Your task to perform on an android device: Open Google Chrome and open the bookmarks view Image 0: 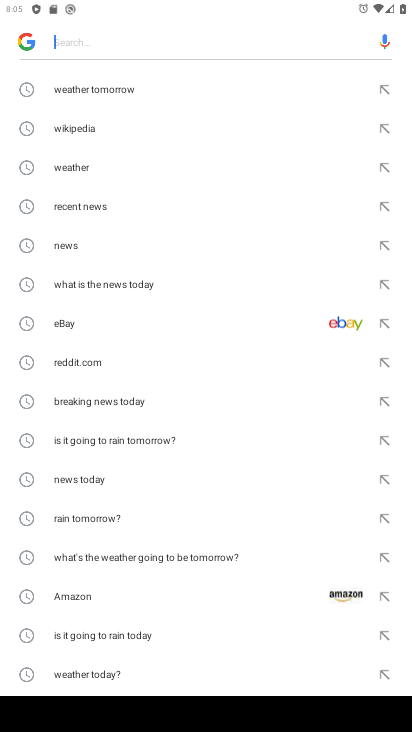
Step 0: press home button
Your task to perform on an android device: Open Google Chrome and open the bookmarks view Image 1: 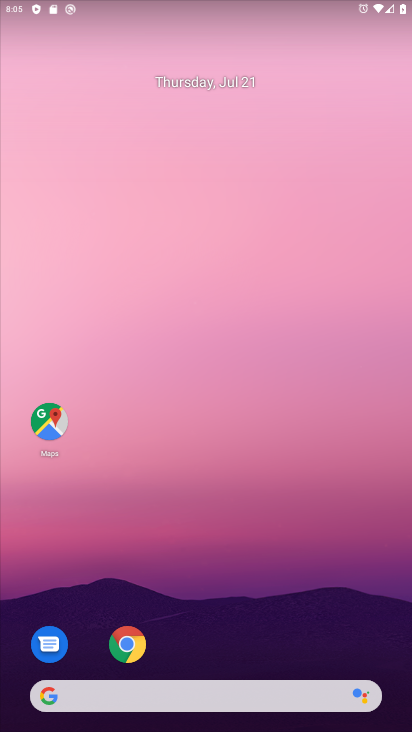
Step 1: drag from (364, 561) to (389, 160)
Your task to perform on an android device: Open Google Chrome and open the bookmarks view Image 2: 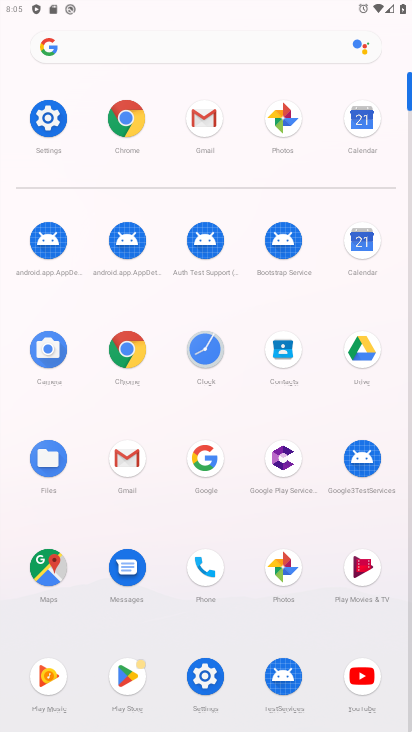
Step 2: click (143, 360)
Your task to perform on an android device: Open Google Chrome and open the bookmarks view Image 3: 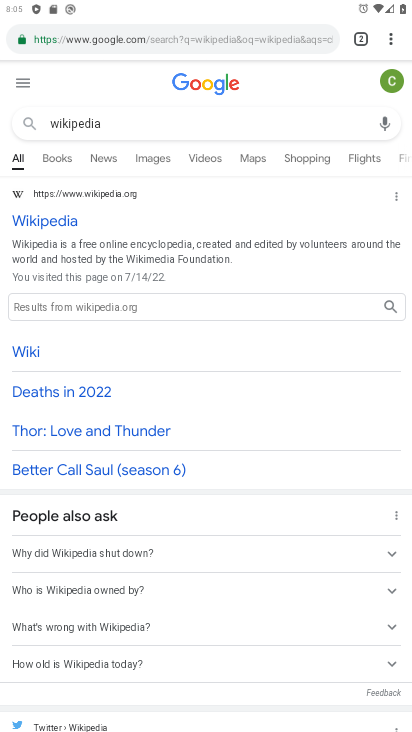
Step 3: click (392, 41)
Your task to perform on an android device: Open Google Chrome and open the bookmarks view Image 4: 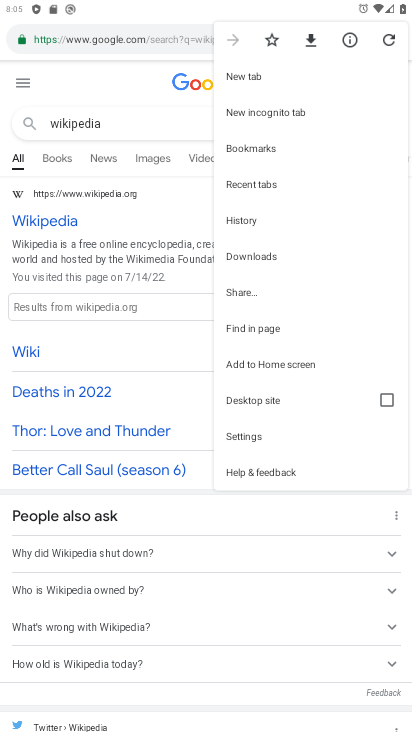
Step 4: click (273, 151)
Your task to perform on an android device: Open Google Chrome and open the bookmarks view Image 5: 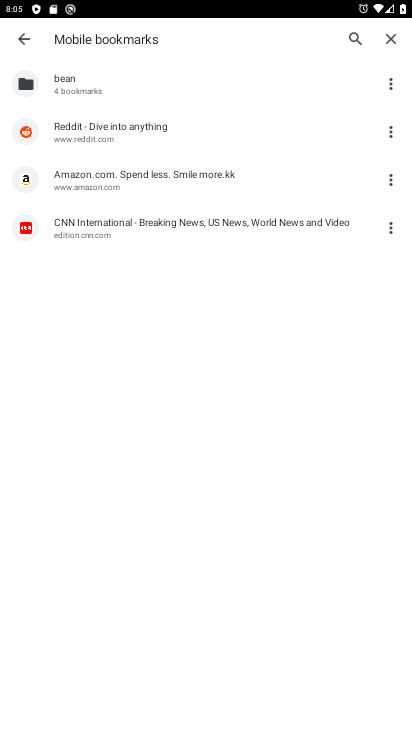
Step 5: task complete